Your task to perform on an android device: delete browsing data in the chrome app Image 0: 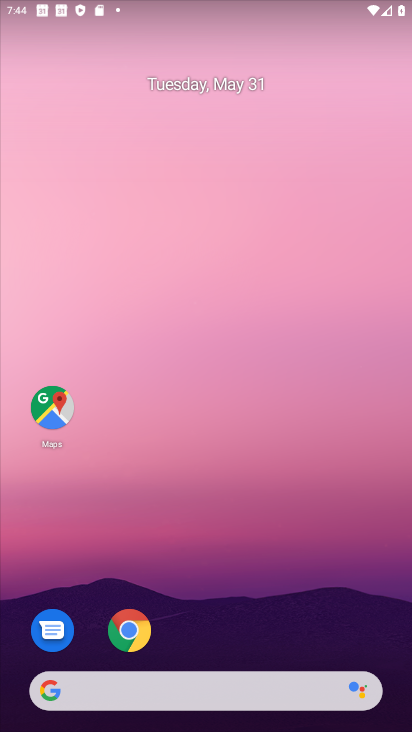
Step 0: click (139, 626)
Your task to perform on an android device: delete browsing data in the chrome app Image 1: 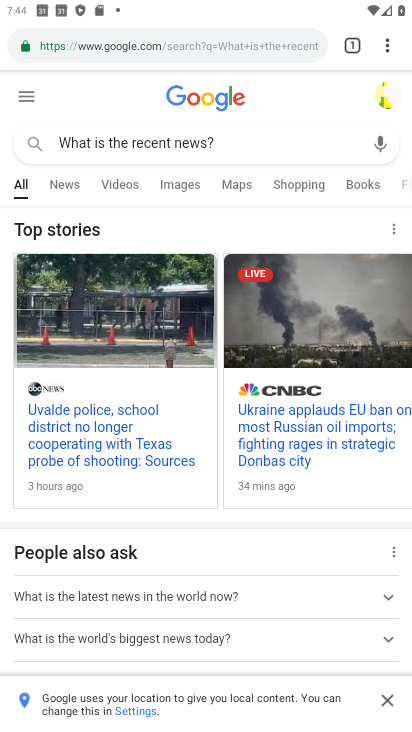
Step 1: click (386, 44)
Your task to perform on an android device: delete browsing data in the chrome app Image 2: 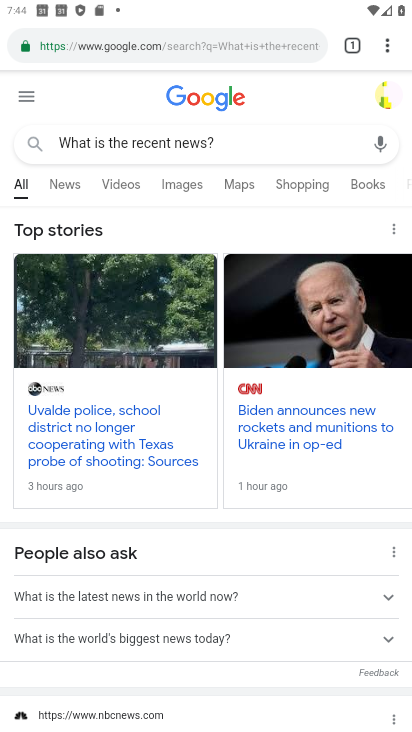
Step 2: click (393, 38)
Your task to perform on an android device: delete browsing data in the chrome app Image 3: 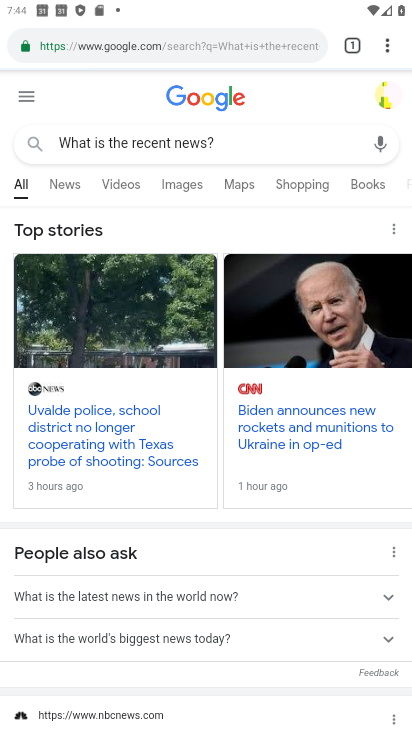
Step 3: click (390, 46)
Your task to perform on an android device: delete browsing data in the chrome app Image 4: 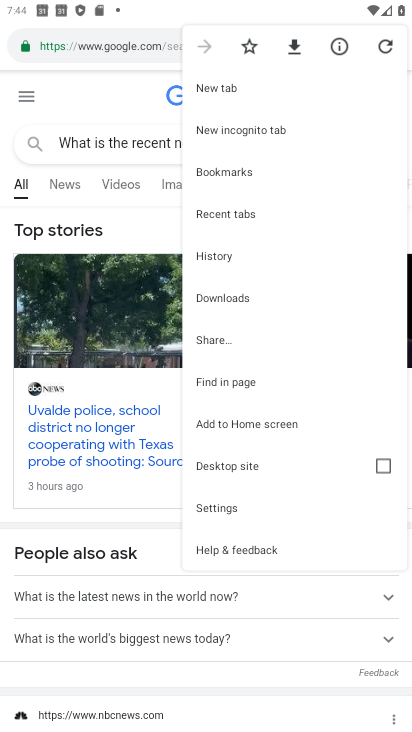
Step 4: click (229, 509)
Your task to perform on an android device: delete browsing data in the chrome app Image 5: 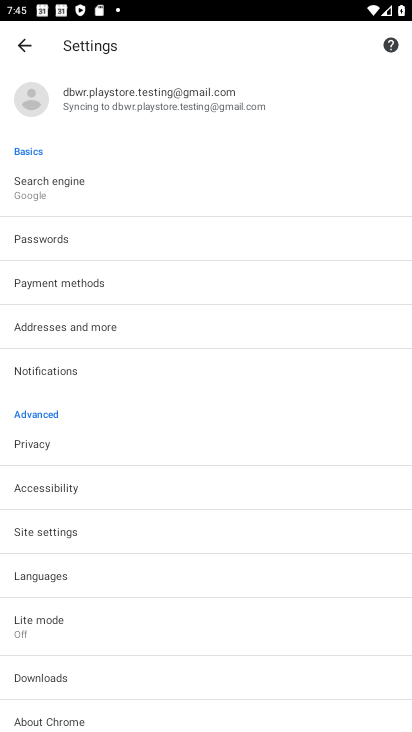
Step 5: click (63, 431)
Your task to perform on an android device: delete browsing data in the chrome app Image 6: 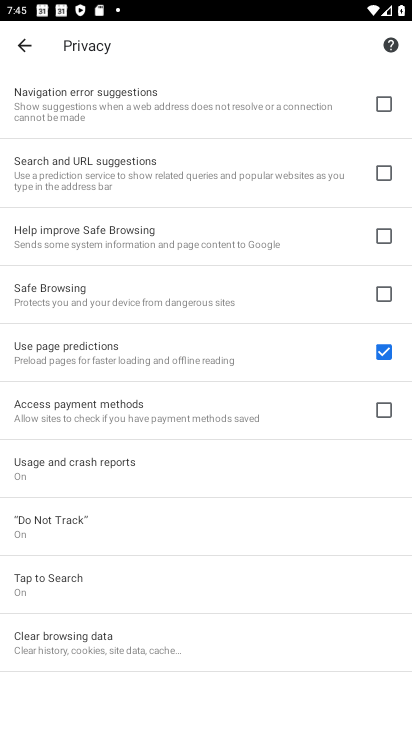
Step 6: drag from (222, 642) to (222, 594)
Your task to perform on an android device: delete browsing data in the chrome app Image 7: 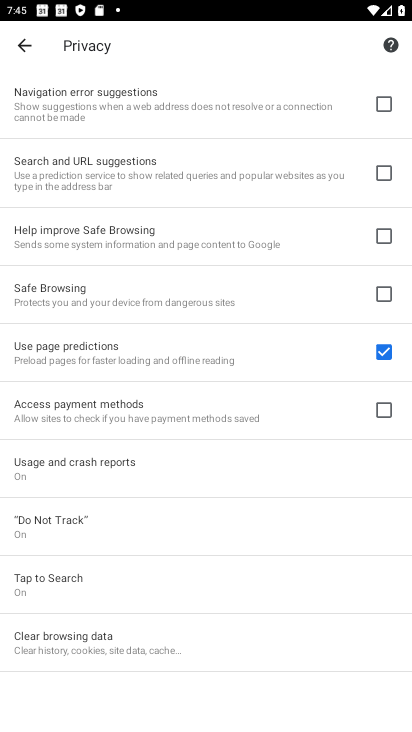
Step 7: click (219, 631)
Your task to perform on an android device: delete browsing data in the chrome app Image 8: 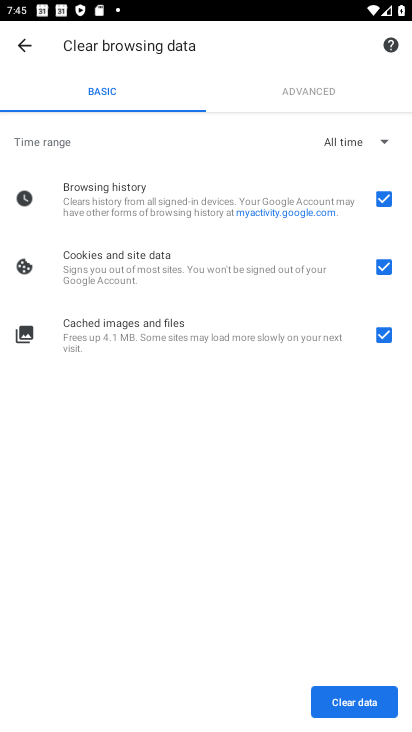
Step 8: click (347, 693)
Your task to perform on an android device: delete browsing data in the chrome app Image 9: 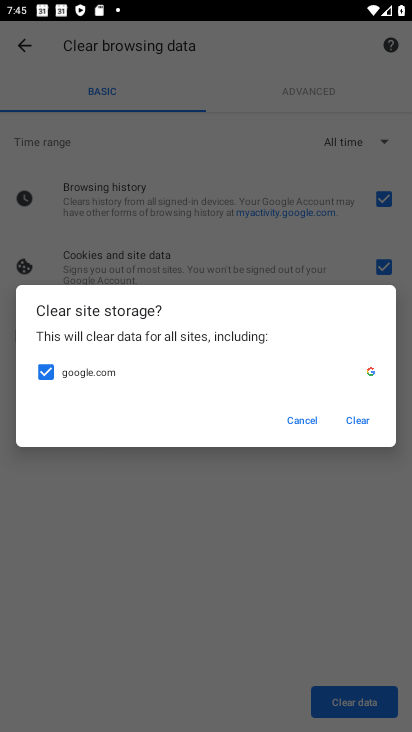
Step 9: click (355, 413)
Your task to perform on an android device: delete browsing data in the chrome app Image 10: 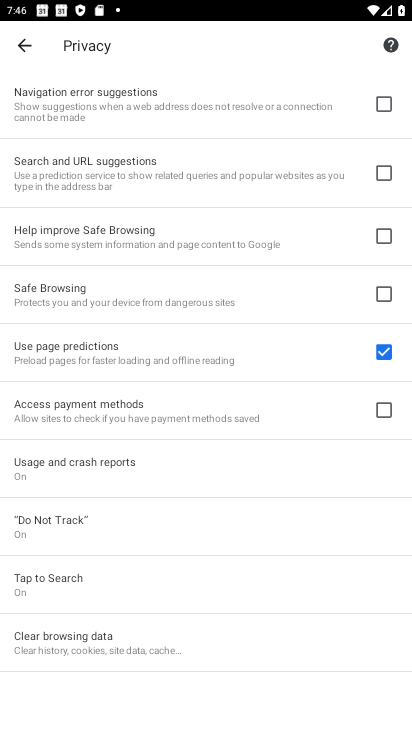
Step 10: task complete